Your task to perform on an android device: Show me productivity apps on the Play Store Image 0: 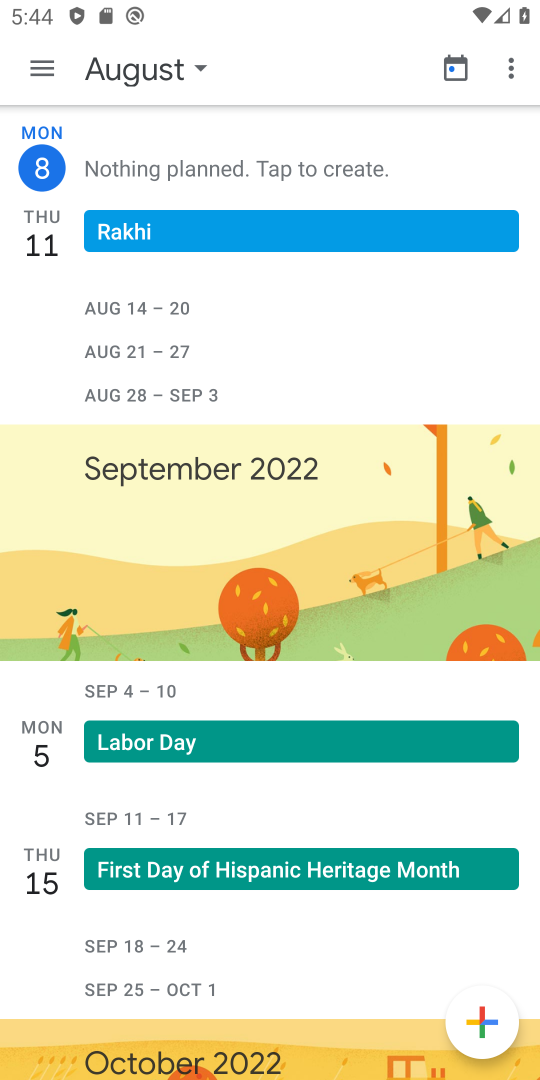
Step 0: press home button
Your task to perform on an android device: Show me productivity apps on the Play Store Image 1: 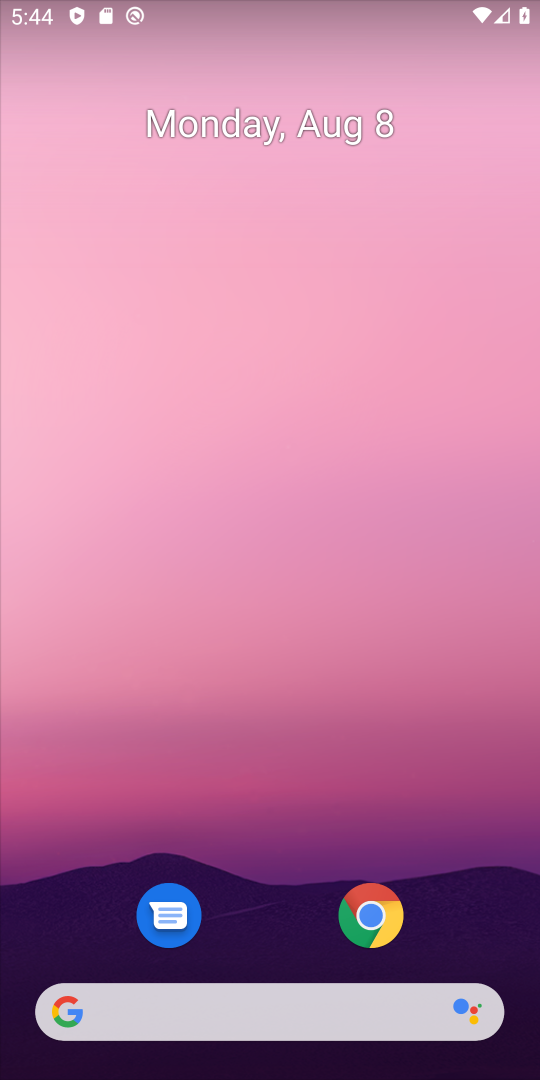
Step 1: drag from (291, 808) to (205, 177)
Your task to perform on an android device: Show me productivity apps on the Play Store Image 2: 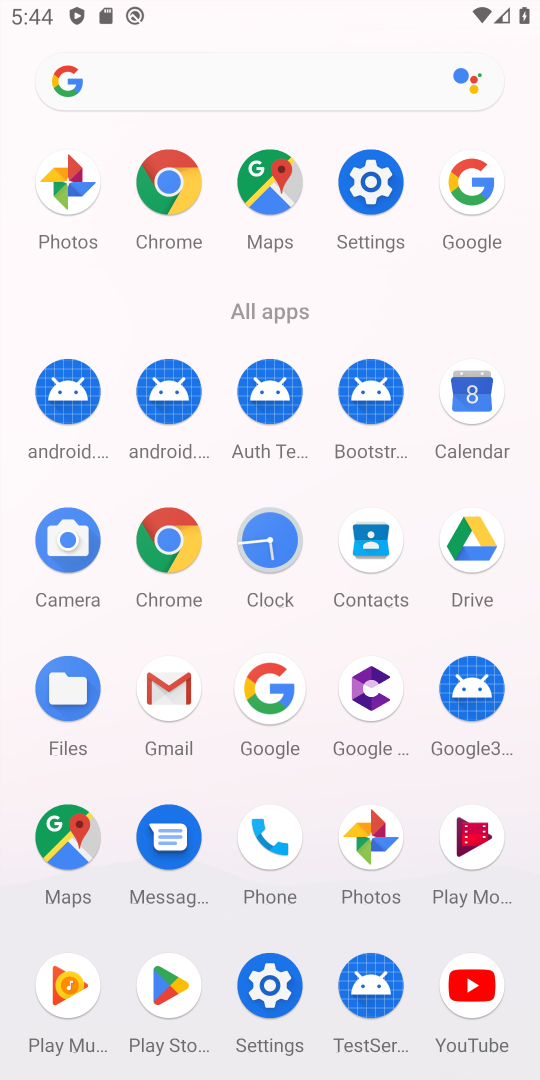
Step 2: click (162, 984)
Your task to perform on an android device: Show me productivity apps on the Play Store Image 3: 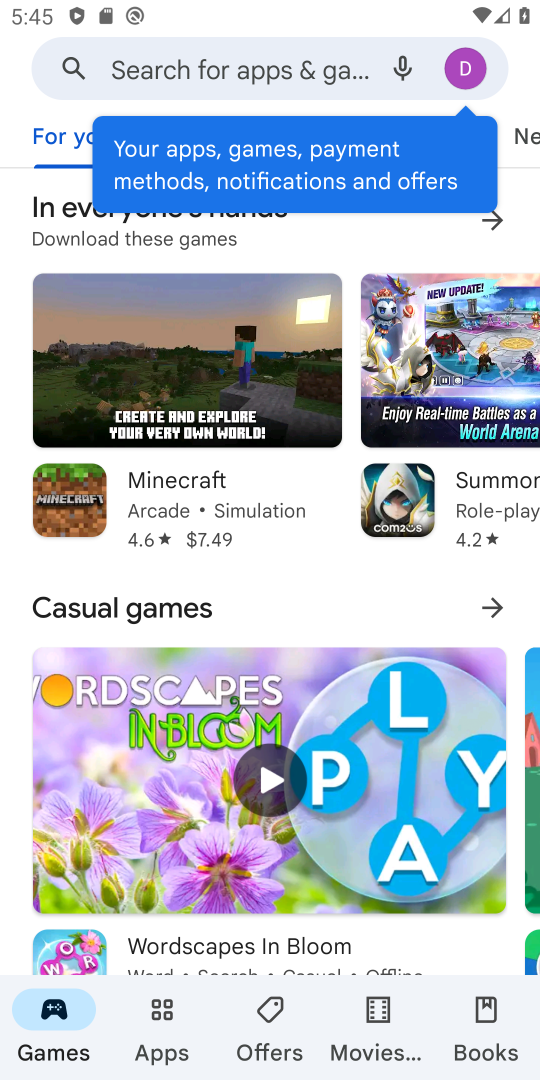
Step 3: click (160, 1006)
Your task to perform on an android device: Show me productivity apps on the Play Store Image 4: 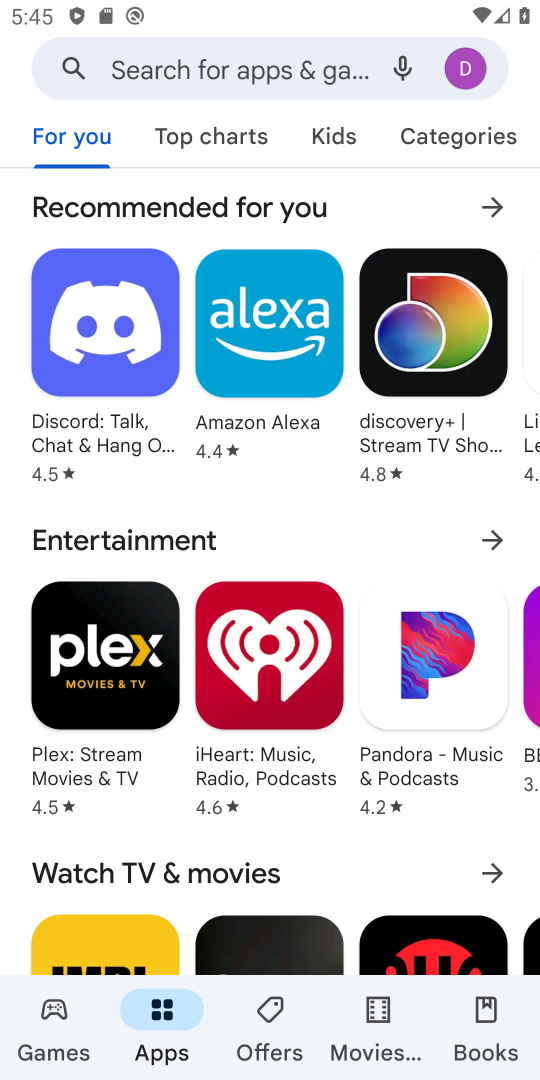
Step 4: task complete